Your task to perform on an android device: Open battery settings Image 0: 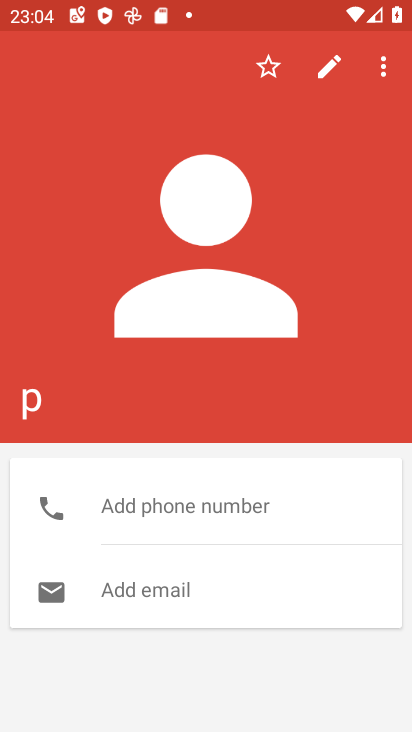
Step 0: drag from (203, 646) to (395, 141)
Your task to perform on an android device: Open battery settings Image 1: 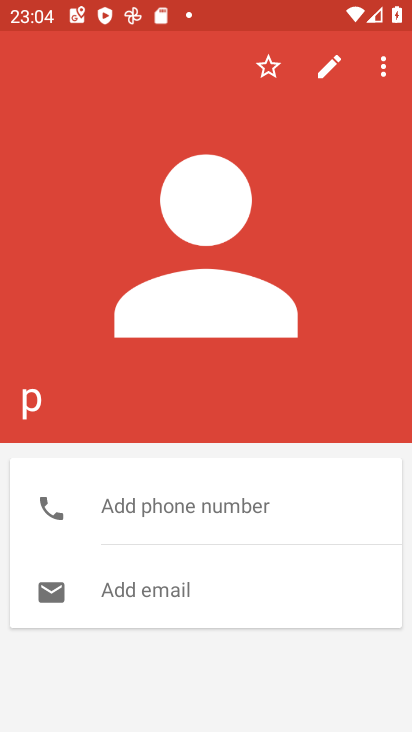
Step 1: press back button
Your task to perform on an android device: Open battery settings Image 2: 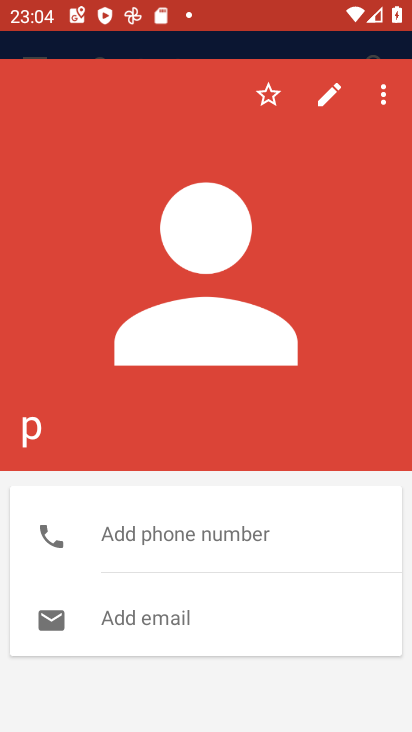
Step 2: press home button
Your task to perform on an android device: Open battery settings Image 3: 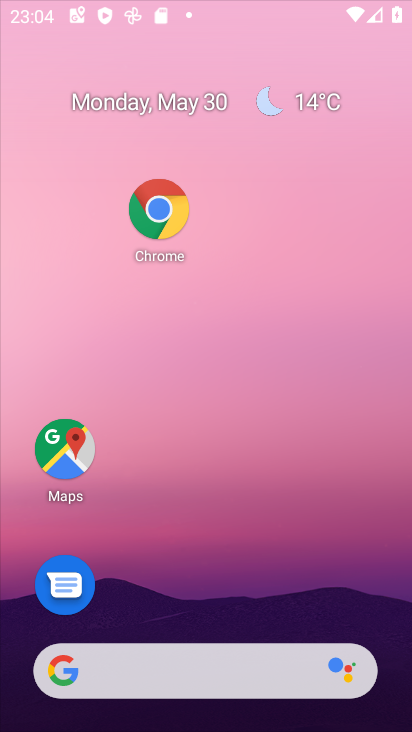
Step 3: drag from (155, 557) to (312, 163)
Your task to perform on an android device: Open battery settings Image 4: 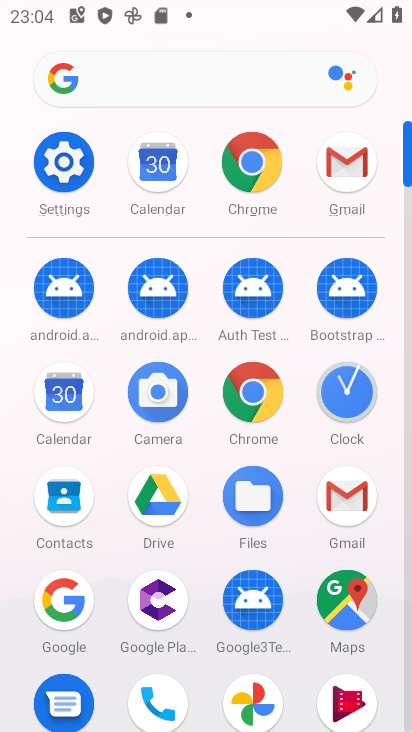
Step 4: click (73, 164)
Your task to perform on an android device: Open battery settings Image 5: 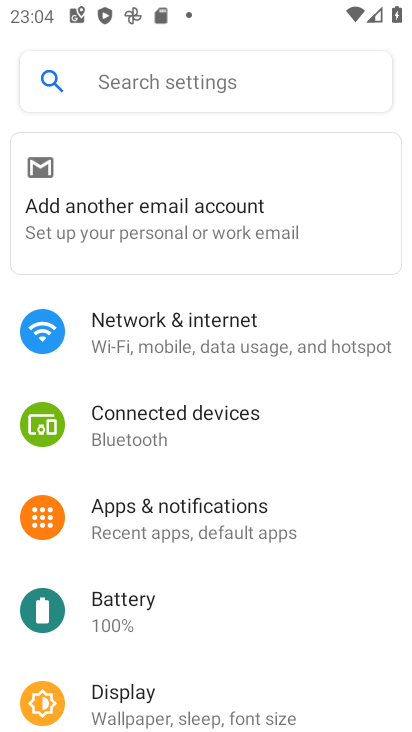
Step 5: click (161, 621)
Your task to perform on an android device: Open battery settings Image 6: 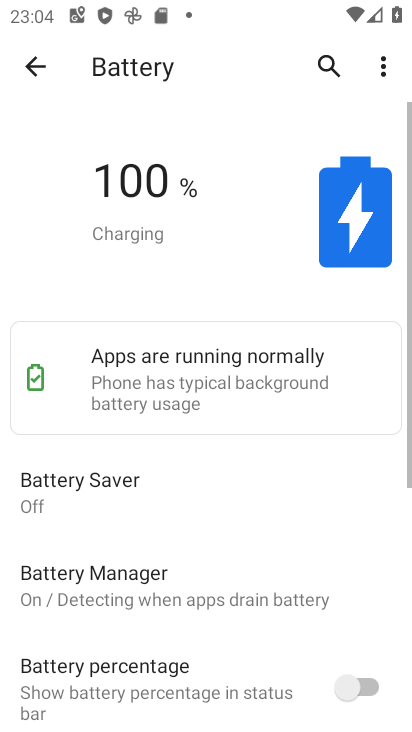
Step 6: task complete